Your task to perform on an android device: check out phone information Image 0: 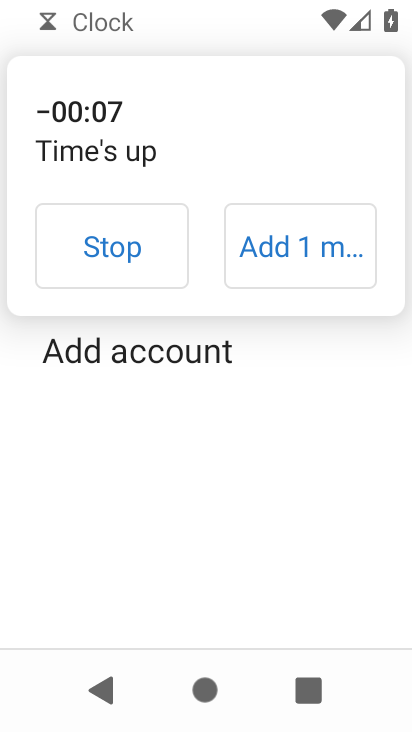
Step 0: click (120, 263)
Your task to perform on an android device: check out phone information Image 1: 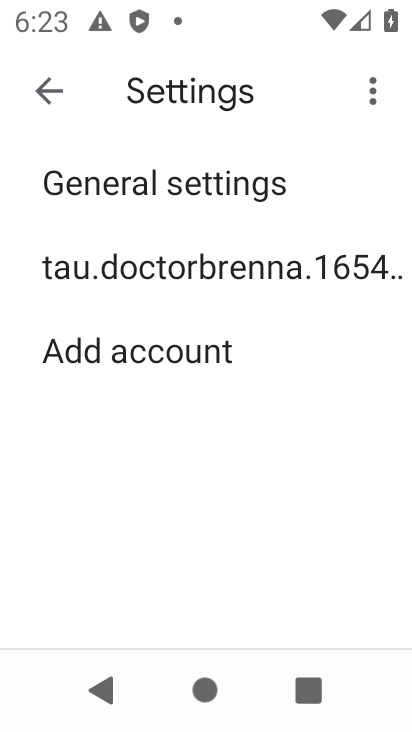
Step 1: press home button
Your task to perform on an android device: check out phone information Image 2: 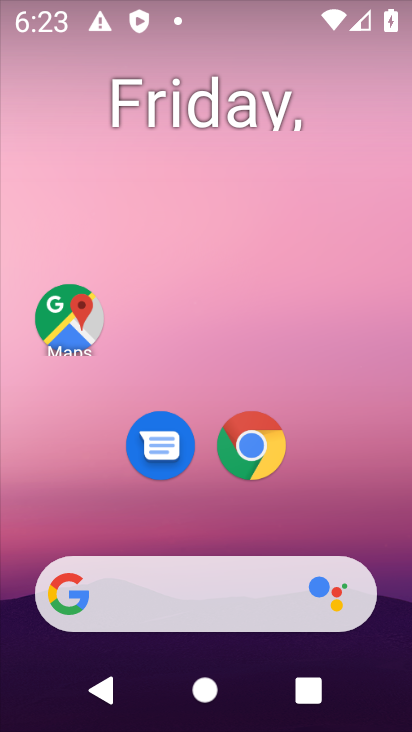
Step 2: drag from (159, 541) to (227, 66)
Your task to perform on an android device: check out phone information Image 3: 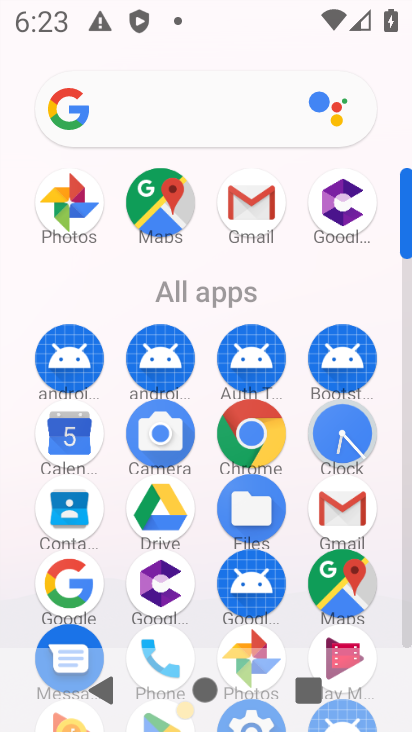
Step 3: drag from (201, 639) to (195, 217)
Your task to perform on an android device: check out phone information Image 4: 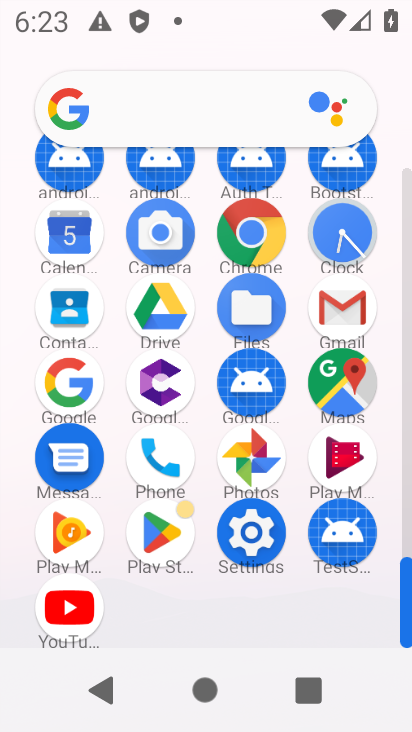
Step 4: click (242, 532)
Your task to perform on an android device: check out phone information Image 5: 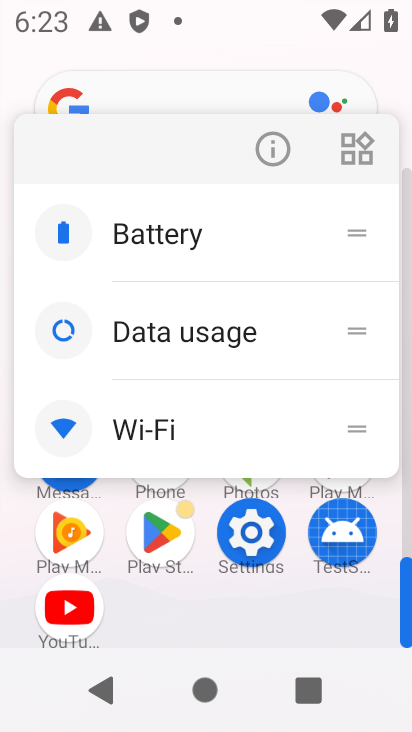
Step 5: click (269, 133)
Your task to perform on an android device: check out phone information Image 6: 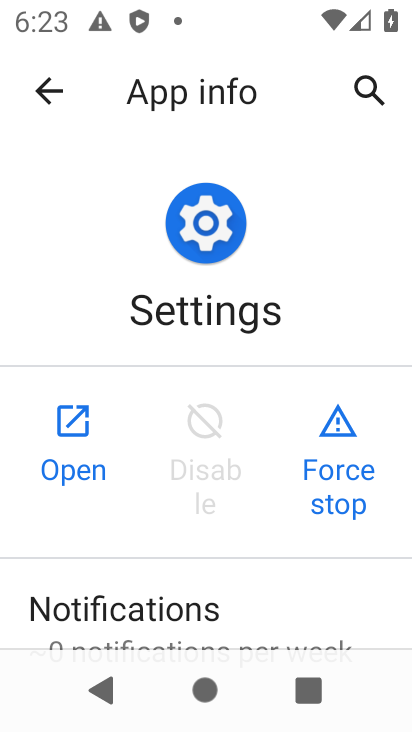
Step 6: click (76, 437)
Your task to perform on an android device: check out phone information Image 7: 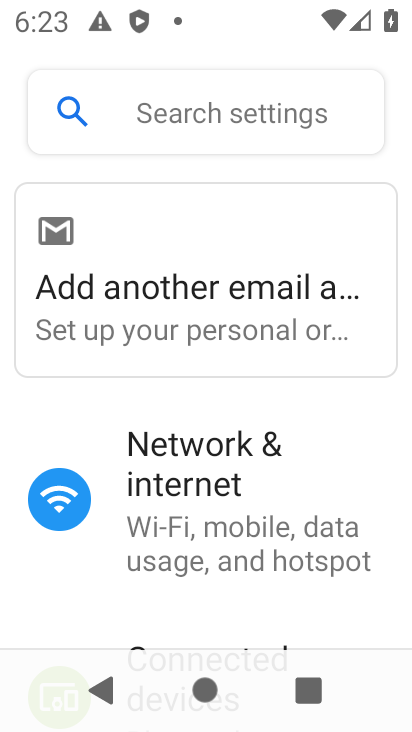
Step 7: drag from (168, 594) to (232, 1)
Your task to perform on an android device: check out phone information Image 8: 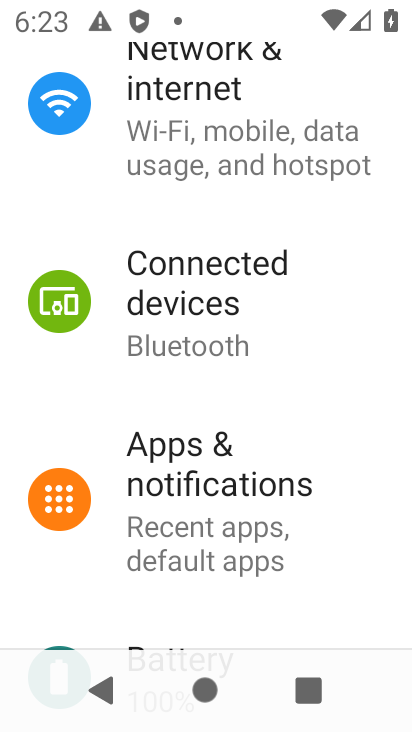
Step 8: drag from (225, 535) to (248, 3)
Your task to perform on an android device: check out phone information Image 9: 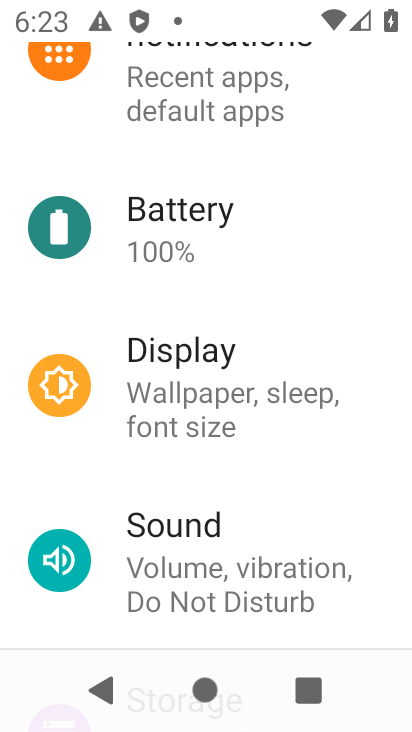
Step 9: drag from (205, 585) to (210, 8)
Your task to perform on an android device: check out phone information Image 10: 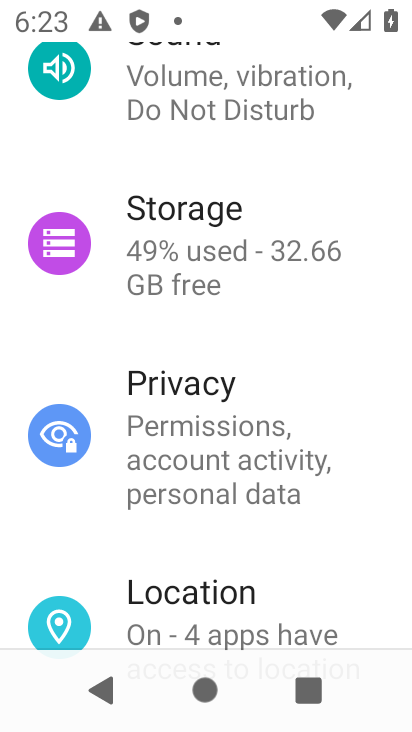
Step 10: drag from (224, 554) to (242, 110)
Your task to perform on an android device: check out phone information Image 11: 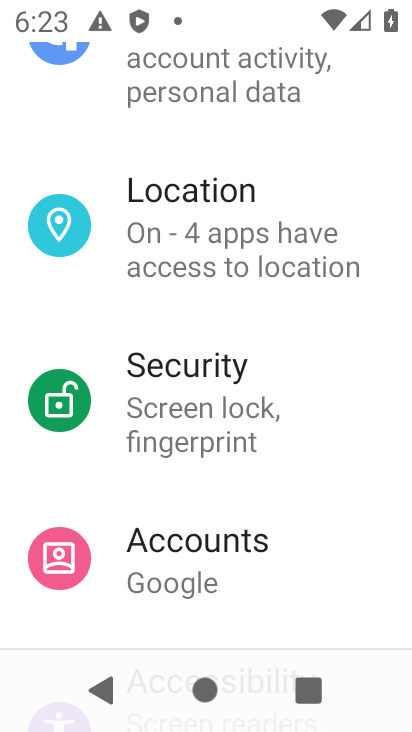
Step 11: drag from (225, 514) to (231, 65)
Your task to perform on an android device: check out phone information Image 12: 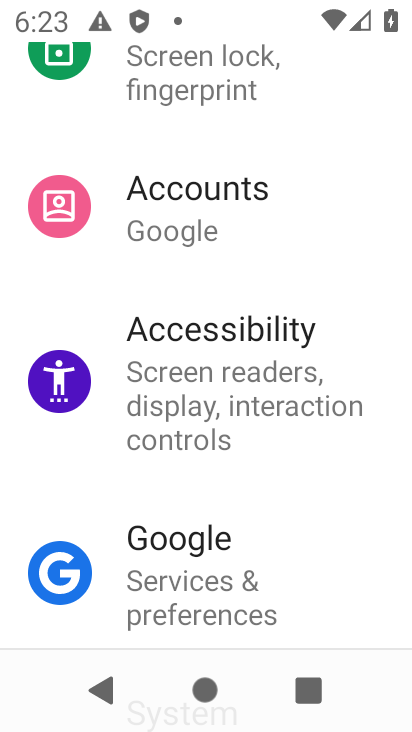
Step 12: drag from (194, 498) to (193, 20)
Your task to perform on an android device: check out phone information Image 13: 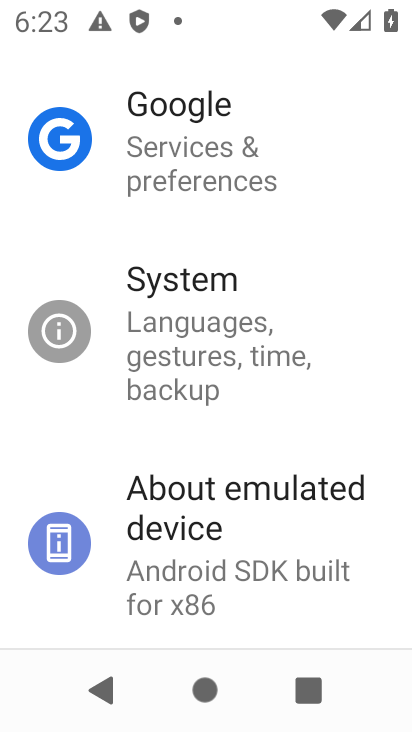
Step 13: drag from (192, 464) to (187, 126)
Your task to perform on an android device: check out phone information Image 14: 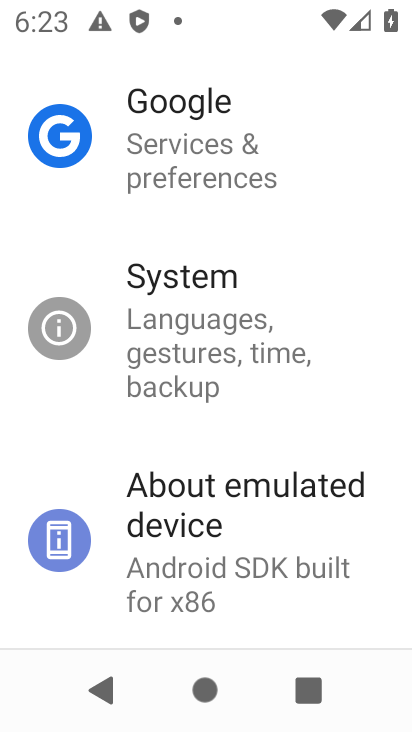
Step 14: click (211, 507)
Your task to perform on an android device: check out phone information Image 15: 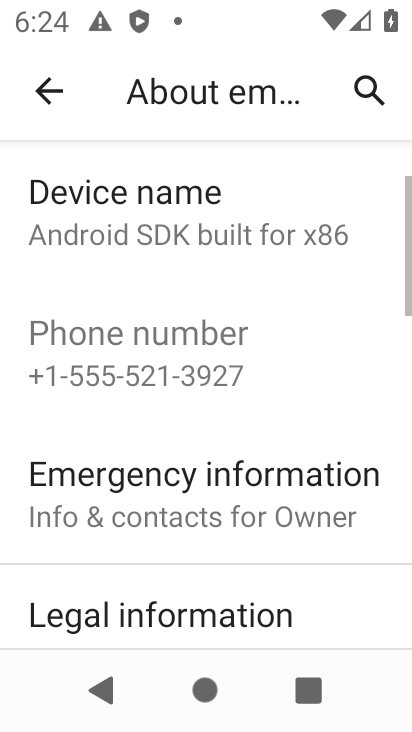
Step 15: task complete